Your task to perform on an android device: find which apps use the phone's location Image 0: 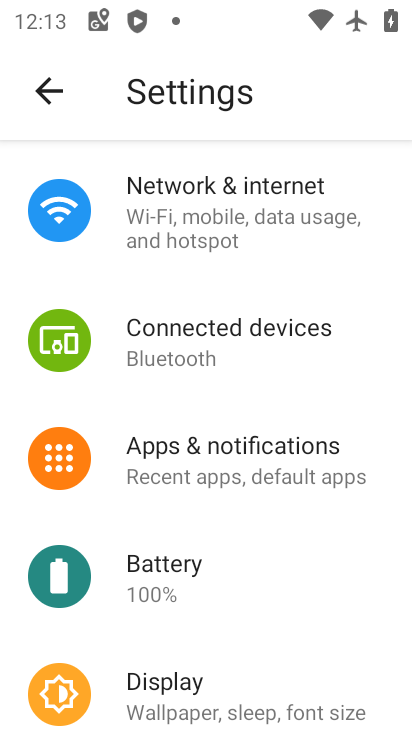
Step 0: drag from (189, 677) to (281, 189)
Your task to perform on an android device: find which apps use the phone's location Image 1: 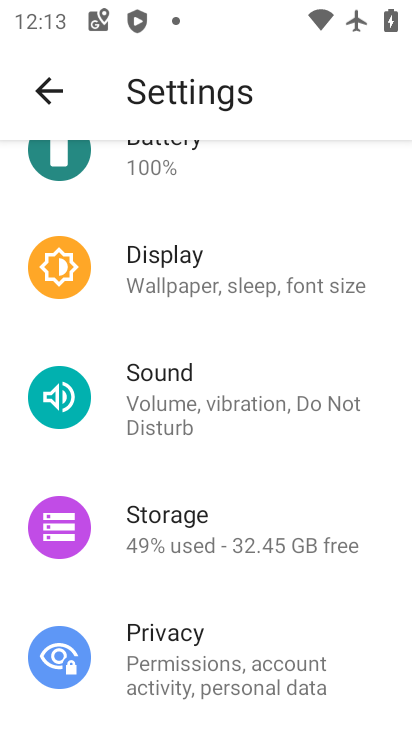
Step 1: drag from (202, 623) to (259, 189)
Your task to perform on an android device: find which apps use the phone's location Image 2: 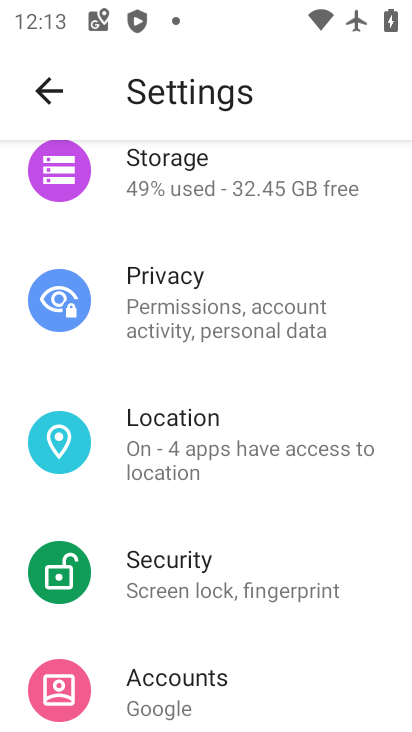
Step 2: click (175, 446)
Your task to perform on an android device: find which apps use the phone's location Image 3: 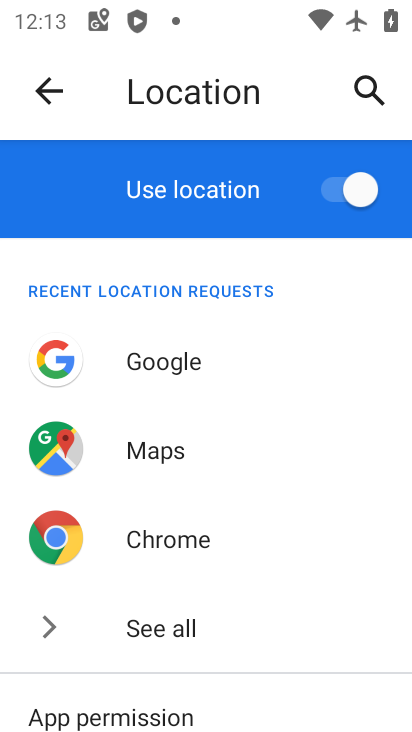
Step 3: drag from (167, 617) to (191, 274)
Your task to perform on an android device: find which apps use the phone's location Image 4: 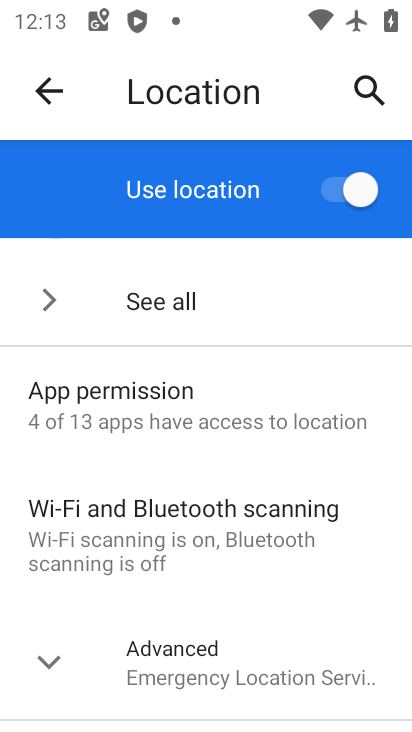
Step 4: click (181, 441)
Your task to perform on an android device: find which apps use the phone's location Image 5: 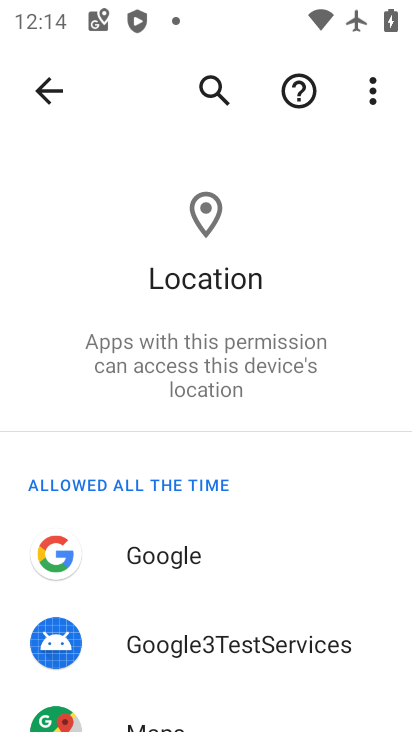
Step 5: task complete